Your task to perform on an android device: Open Google Chrome and open the bookmarks view Image 0: 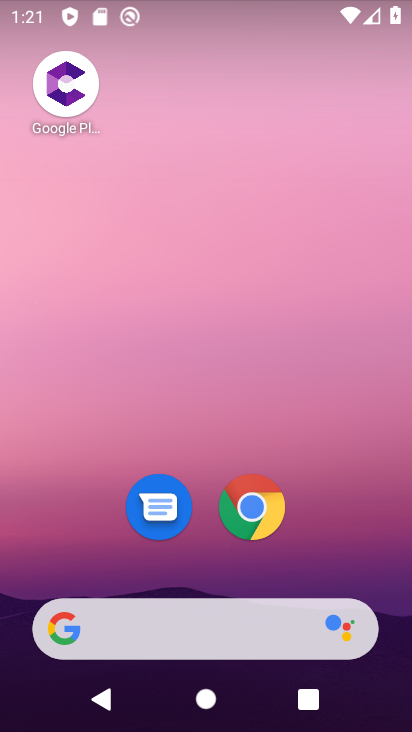
Step 0: click (241, 504)
Your task to perform on an android device: Open Google Chrome and open the bookmarks view Image 1: 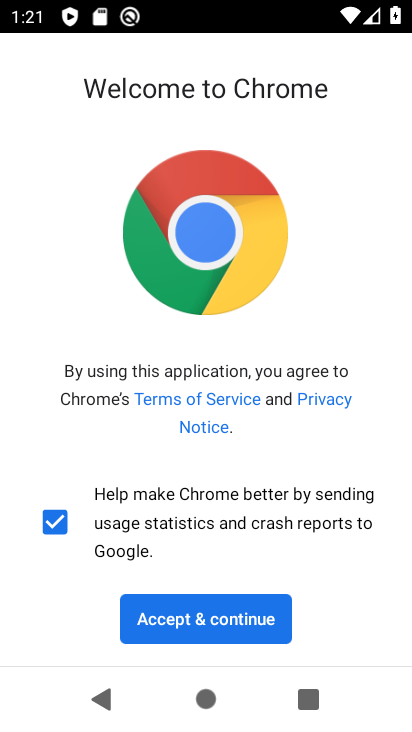
Step 1: click (196, 618)
Your task to perform on an android device: Open Google Chrome and open the bookmarks view Image 2: 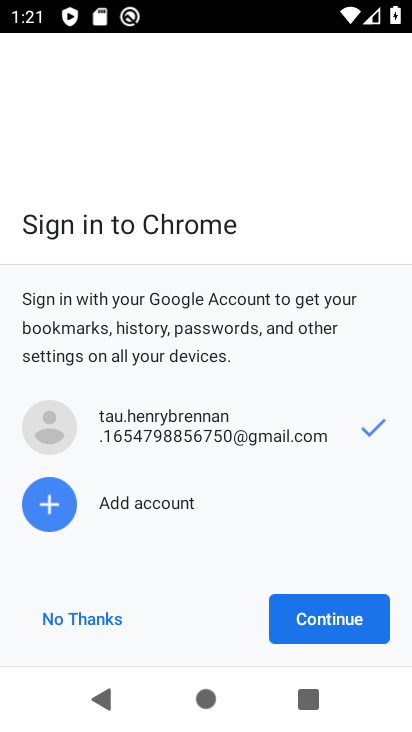
Step 2: click (341, 600)
Your task to perform on an android device: Open Google Chrome and open the bookmarks view Image 3: 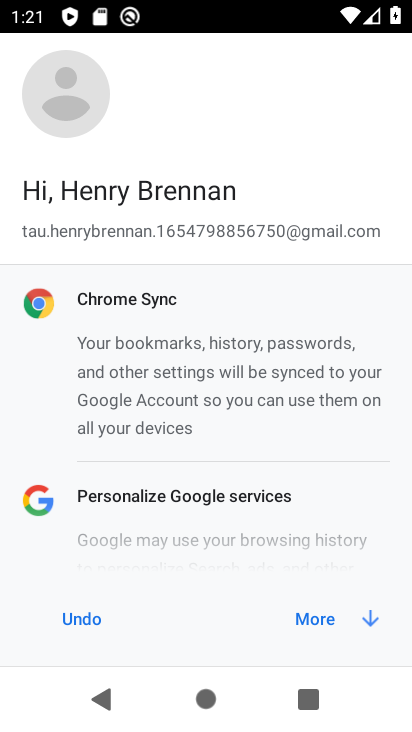
Step 3: click (339, 602)
Your task to perform on an android device: Open Google Chrome and open the bookmarks view Image 4: 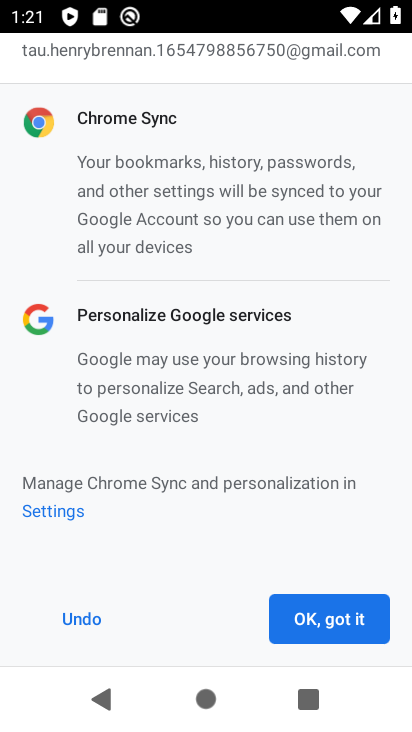
Step 4: click (347, 608)
Your task to perform on an android device: Open Google Chrome and open the bookmarks view Image 5: 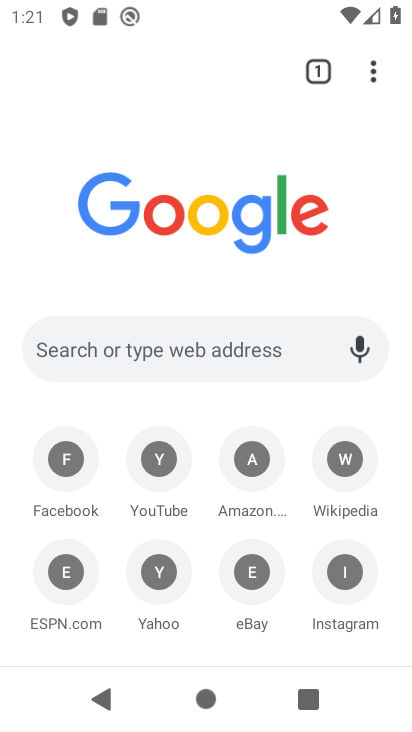
Step 5: task complete